Your task to perform on an android device: all mails in gmail Image 0: 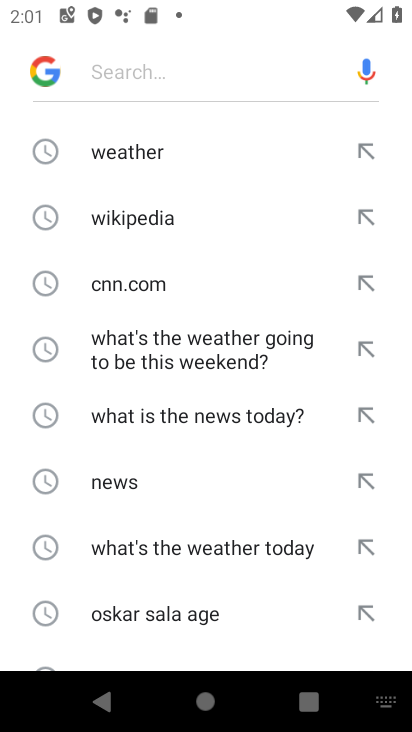
Step 0: press home button
Your task to perform on an android device: all mails in gmail Image 1: 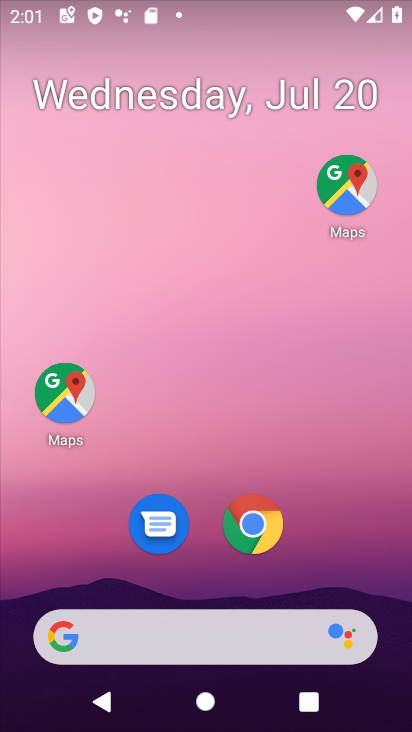
Step 1: drag from (205, 437) to (264, 12)
Your task to perform on an android device: all mails in gmail Image 2: 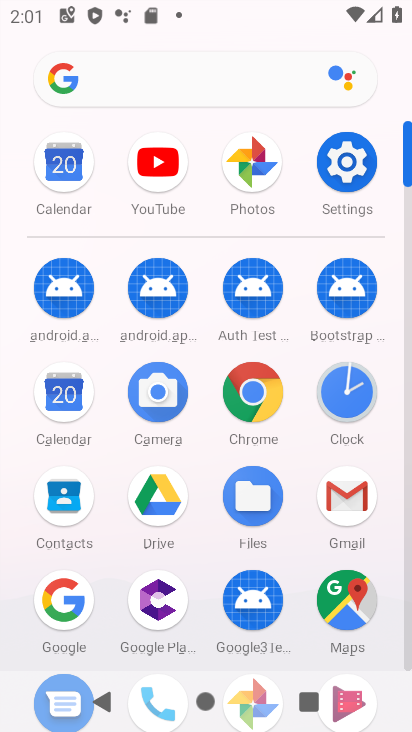
Step 2: click (345, 493)
Your task to perform on an android device: all mails in gmail Image 3: 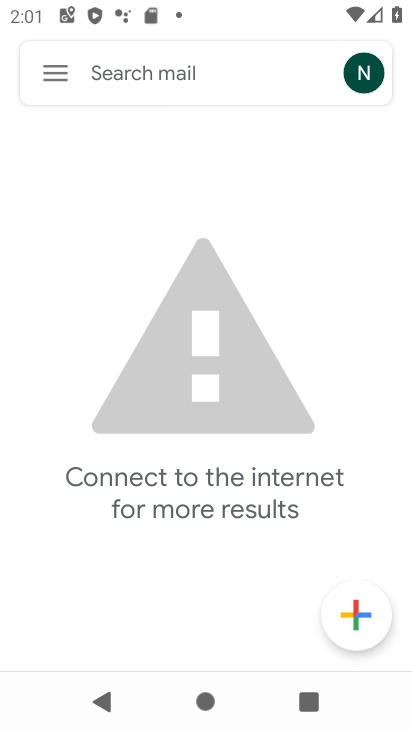
Step 3: click (61, 73)
Your task to perform on an android device: all mails in gmail Image 4: 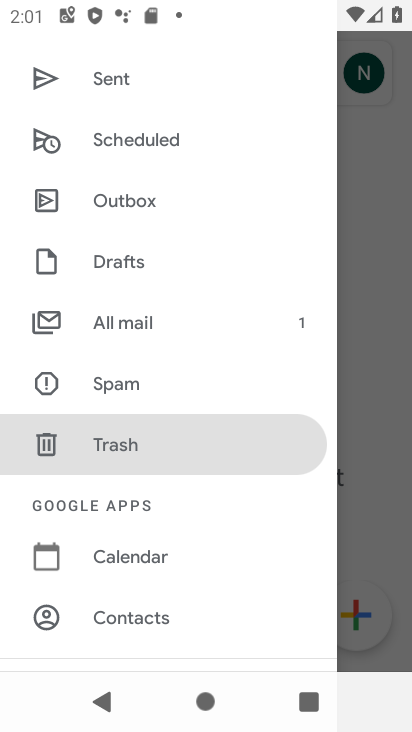
Step 4: click (120, 320)
Your task to perform on an android device: all mails in gmail Image 5: 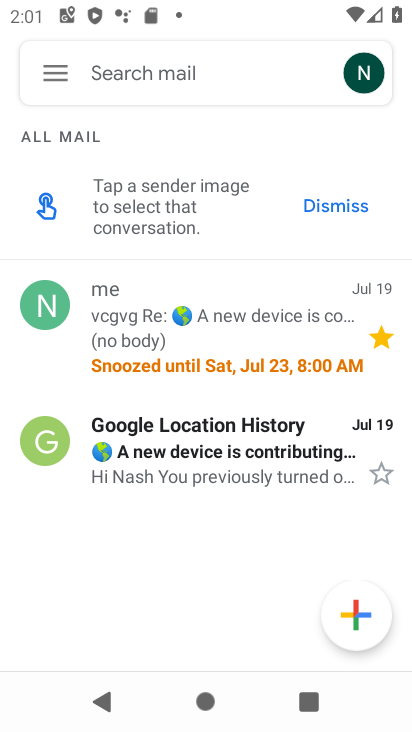
Step 5: task complete